Your task to perform on an android device: check the backup settings in the google photos Image 0: 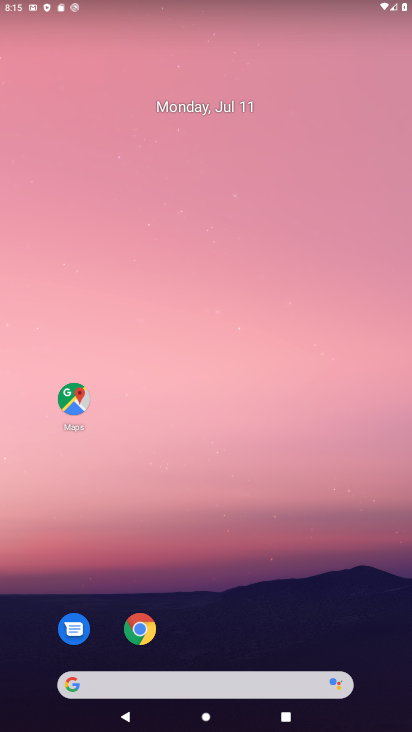
Step 0: drag from (204, 635) to (204, 154)
Your task to perform on an android device: check the backup settings in the google photos Image 1: 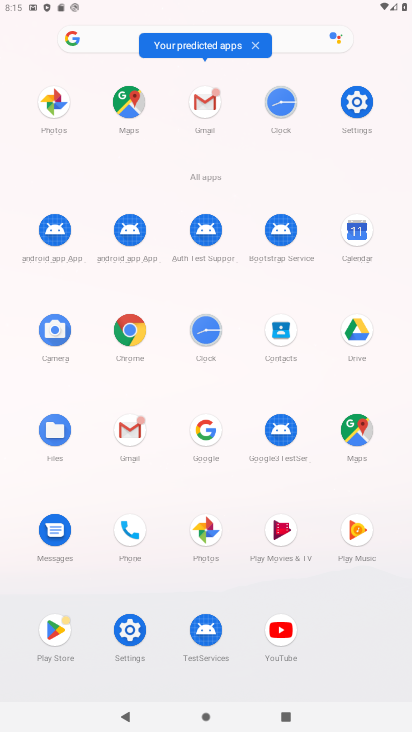
Step 1: click (208, 540)
Your task to perform on an android device: check the backup settings in the google photos Image 2: 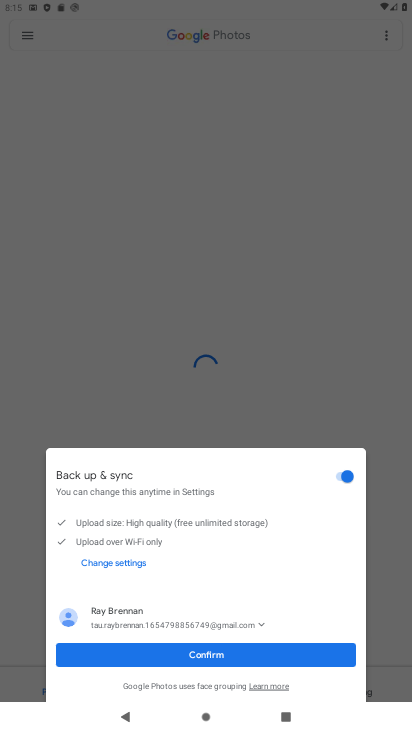
Step 2: click (259, 656)
Your task to perform on an android device: check the backup settings in the google photos Image 3: 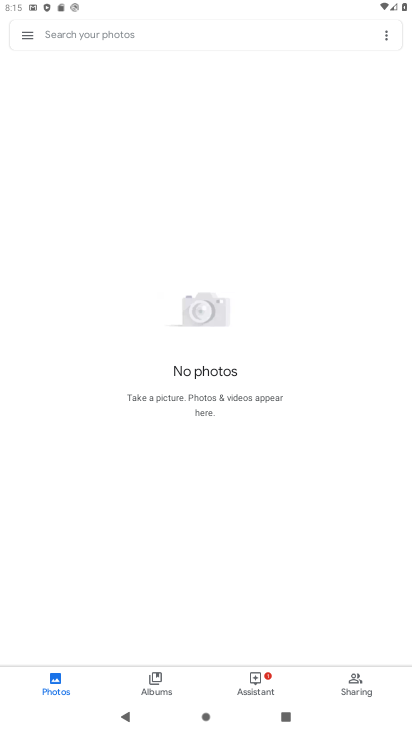
Step 3: click (30, 37)
Your task to perform on an android device: check the backup settings in the google photos Image 4: 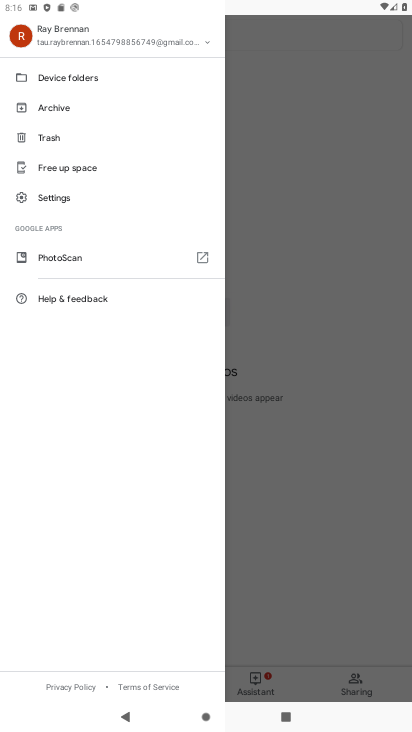
Step 4: click (71, 203)
Your task to perform on an android device: check the backup settings in the google photos Image 5: 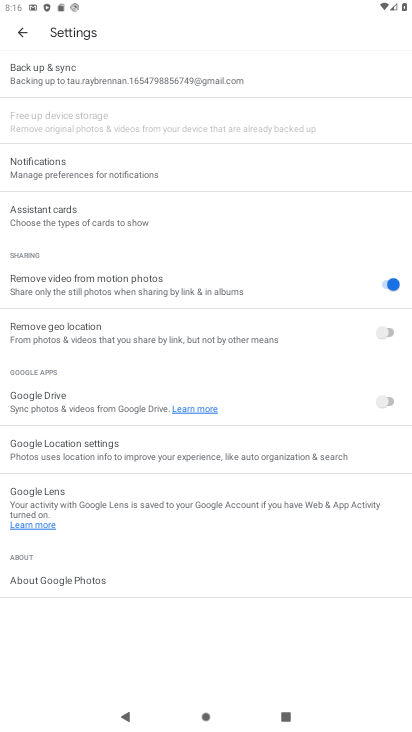
Step 5: click (87, 70)
Your task to perform on an android device: check the backup settings in the google photos Image 6: 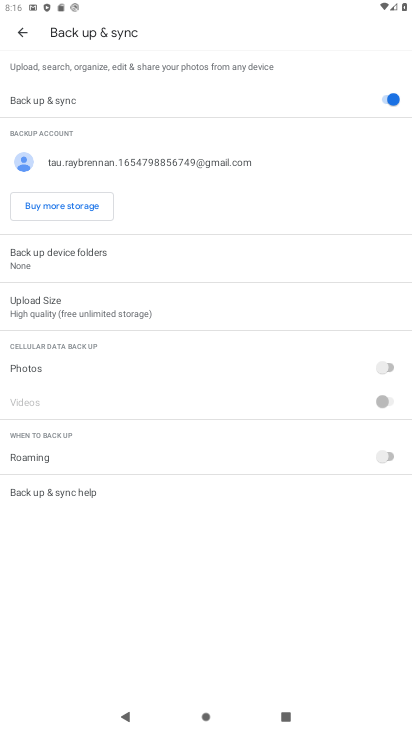
Step 6: task complete